Your task to perform on an android device: Search for Italian restaurants on Maps Image 0: 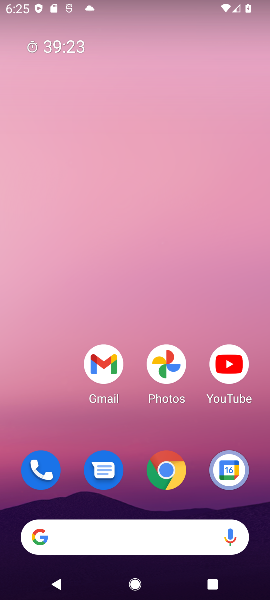
Step 0: press home button
Your task to perform on an android device: Search for Italian restaurants on Maps Image 1: 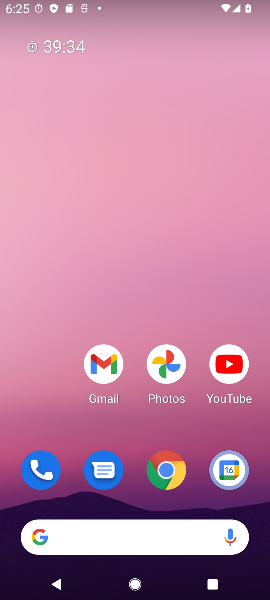
Step 1: drag from (196, 444) to (215, 32)
Your task to perform on an android device: Search for Italian restaurants on Maps Image 2: 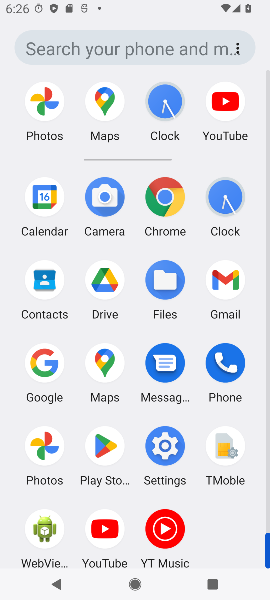
Step 2: click (110, 93)
Your task to perform on an android device: Search for Italian restaurants on Maps Image 3: 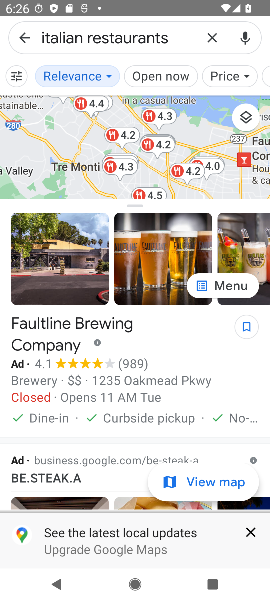
Step 3: task complete